Your task to perform on an android device: What's the news in Taiwan? Image 0: 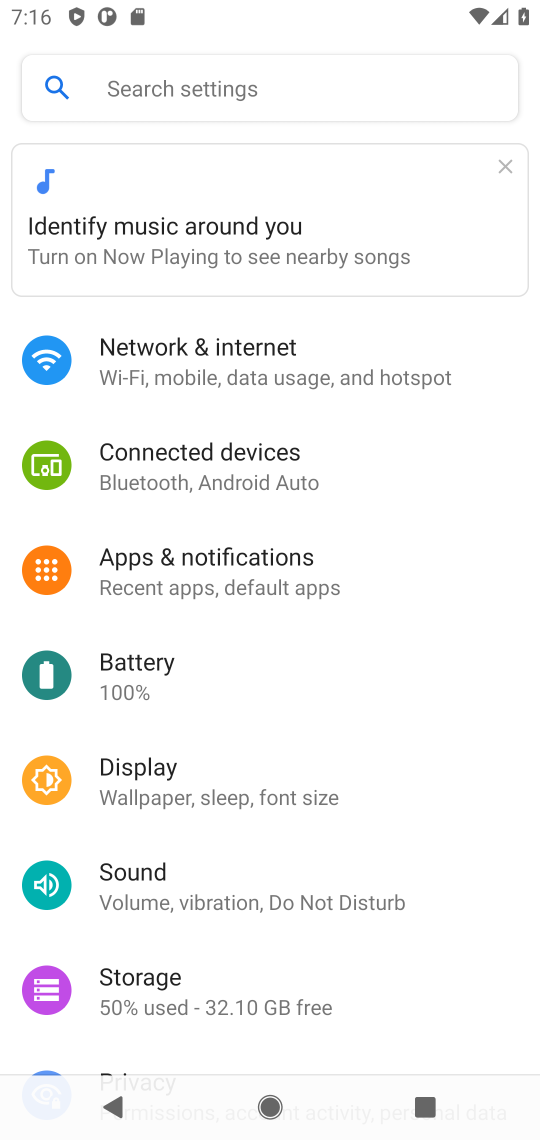
Step 0: click (501, 530)
Your task to perform on an android device: What's the news in Taiwan? Image 1: 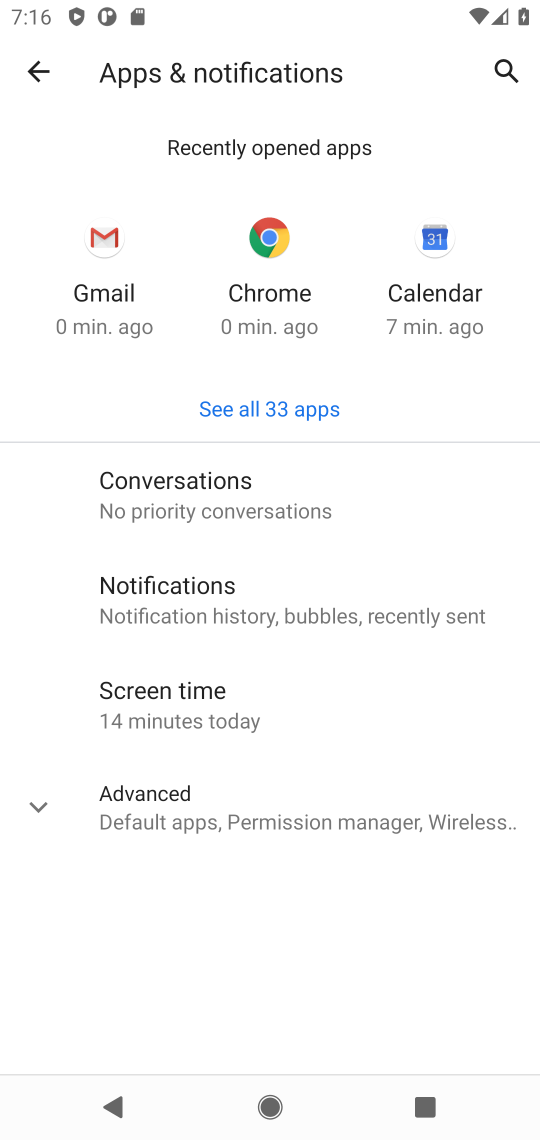
Step 1: press home button
Your task to perform on an android device: What's the news in Taiwan? Image 2: 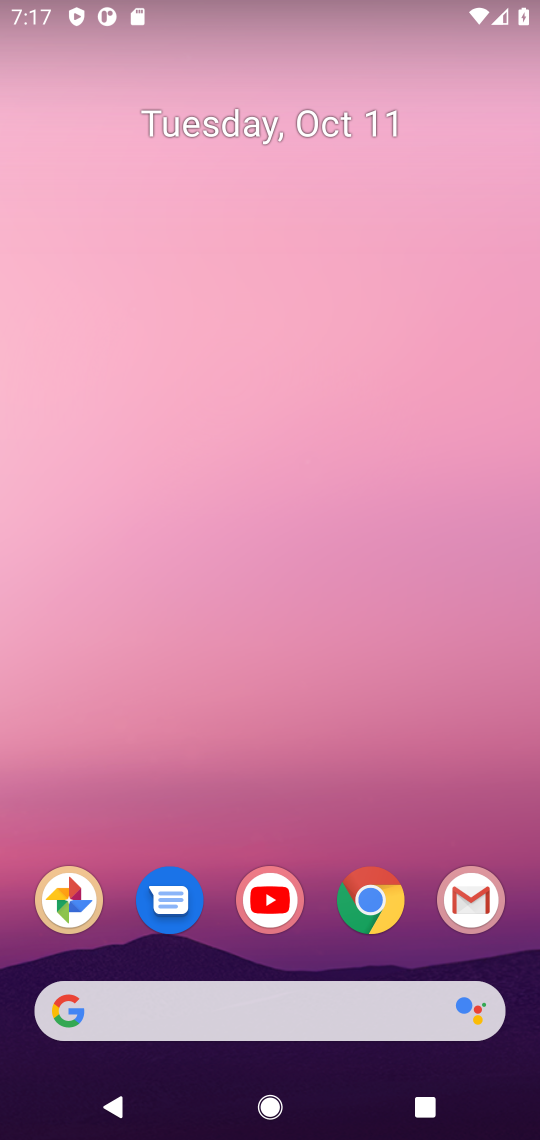
Step 2: click (385, 920)
Your task to perform on an android device: What's the news in Taiwan? Image 3: 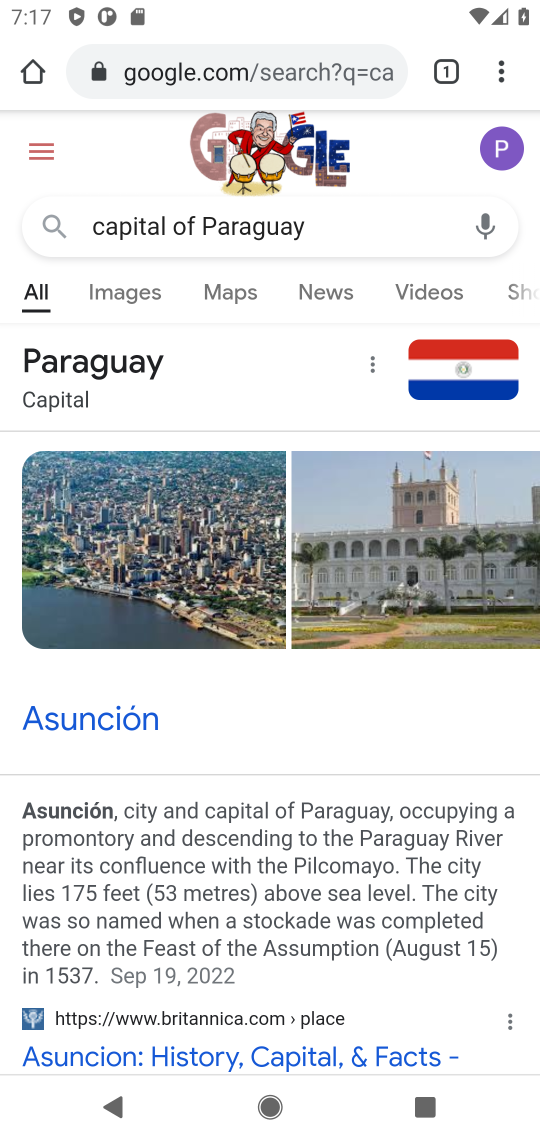
Step 3: click (204, 71)
Your task to perform on an android device: What's the news in Taiwan? Image 4: 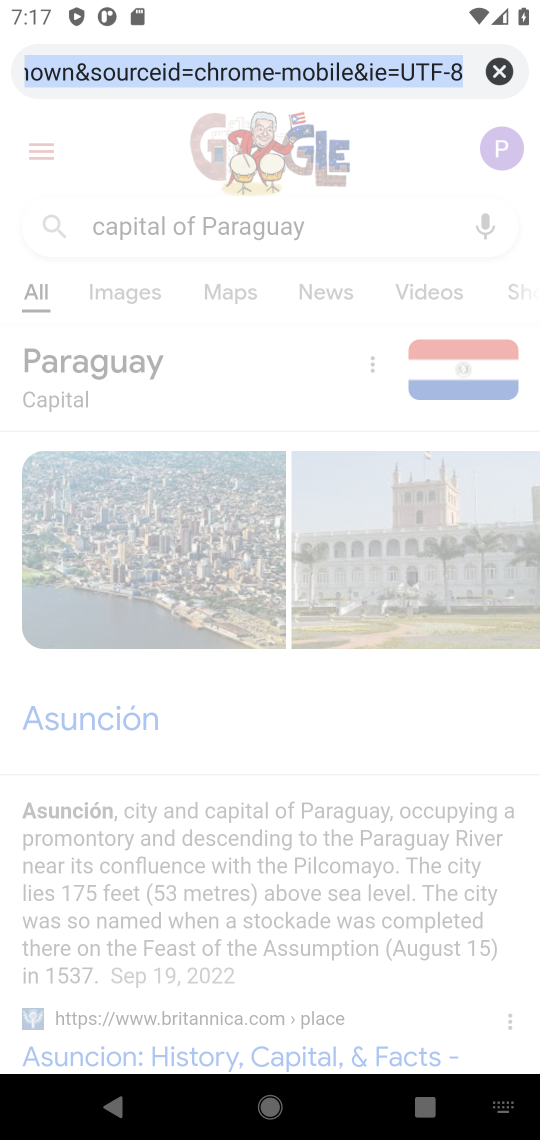
Step 4: type "news in Taiwan"
Your task to perform on an android device: What's the news in Taiwan? Image 5: 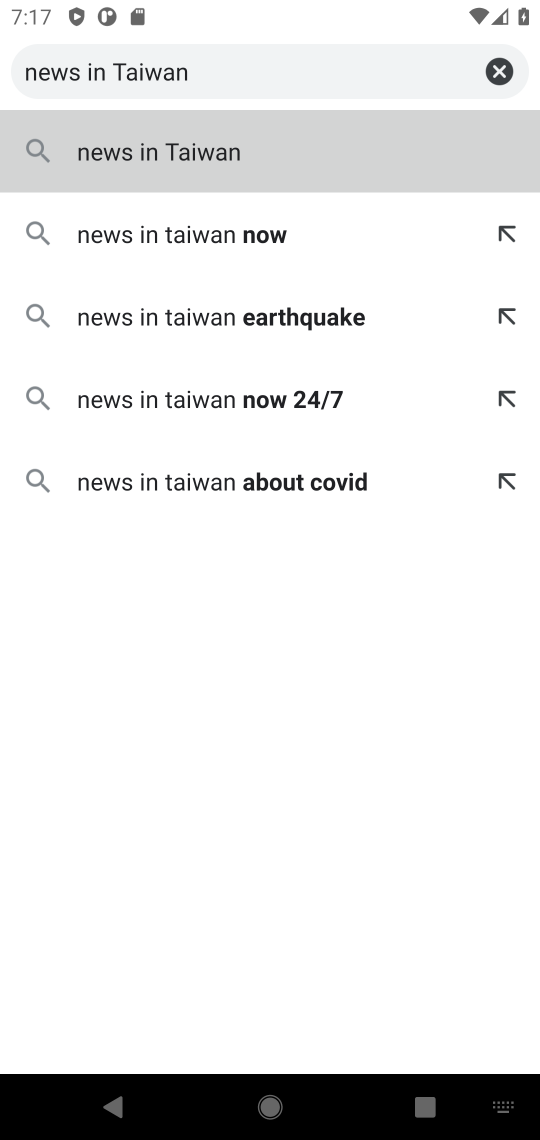
Step 5: click (291, 155)
Your task to perform on an android device: What's the news in Taiwan? Image 6: 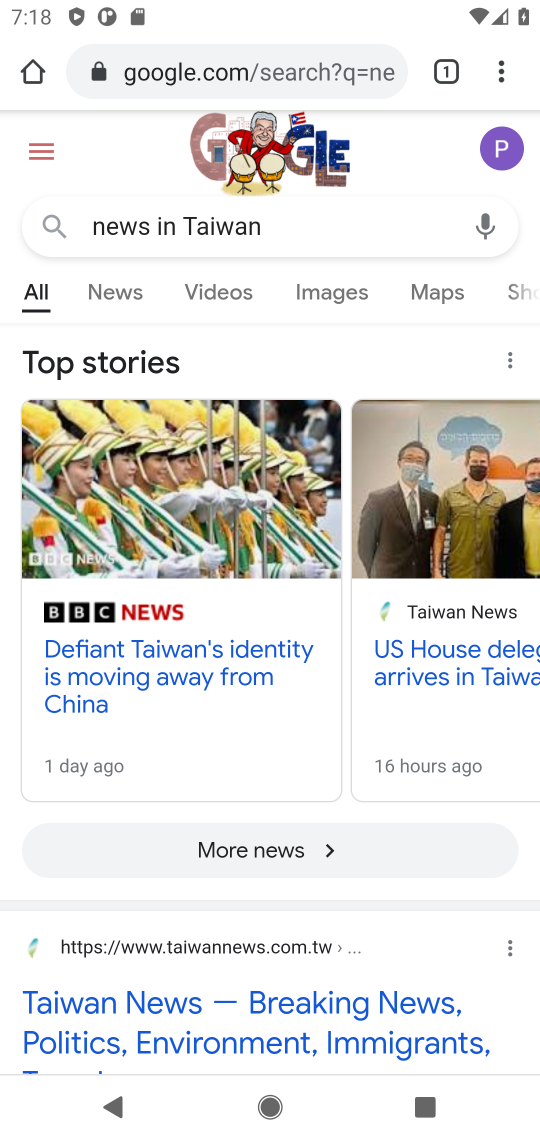
Step 6: click (136, 293)
Your task to perform on an android device: What's the news in Taiwan? Image 7: 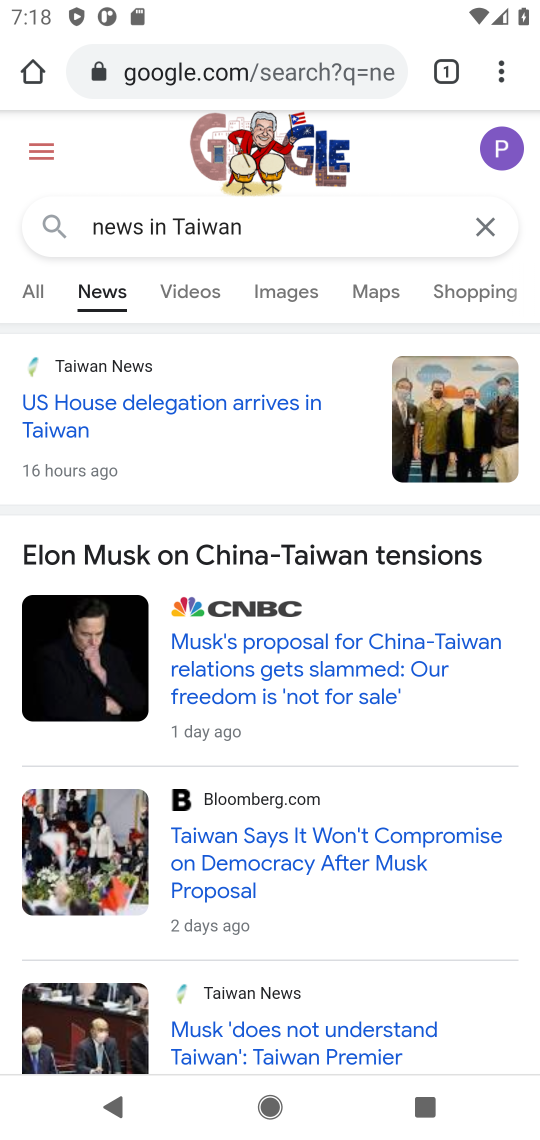
Step 7: task complete